Your task to perform on an android device: see creations saved in the google photos Image 0: 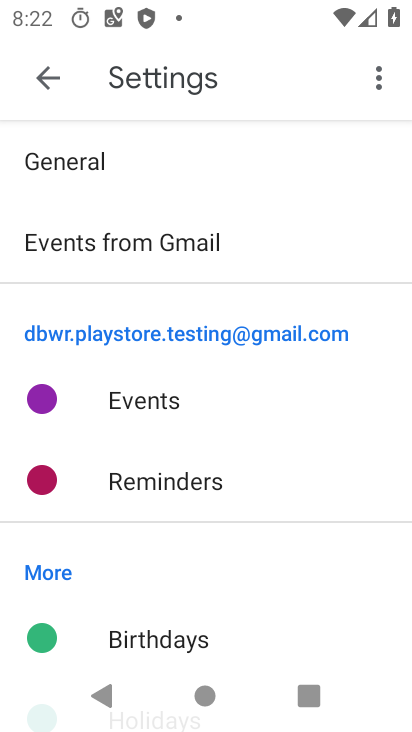
Step 0: press home button
Your task to perform on an android device: see creations saved in the google photos Image 1: 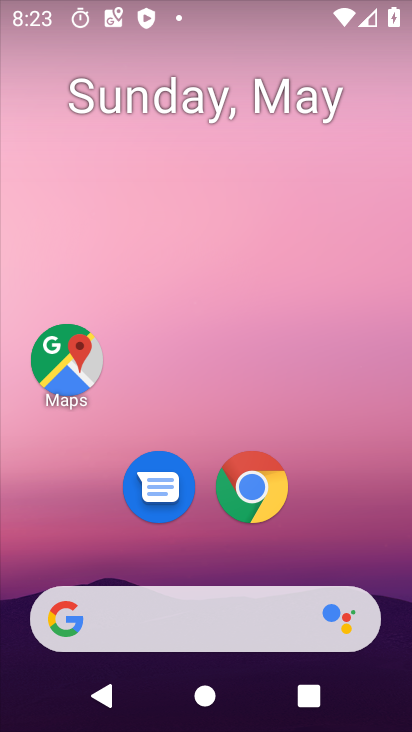
Step 1: drag from (71, 433) to (209, 141)
Your task to perform on an android device: see creations saved in the google photos Image 2: 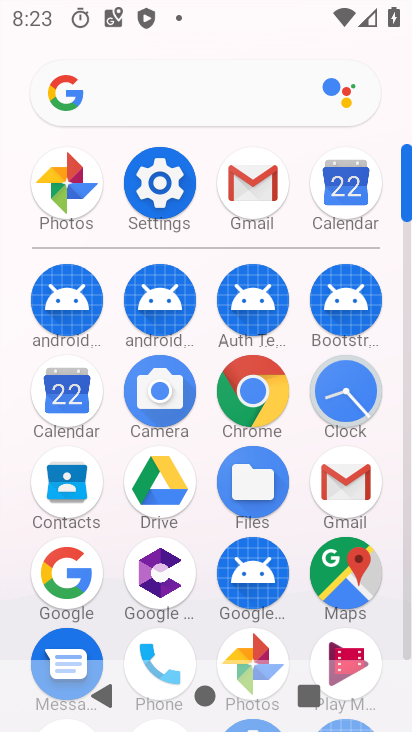
Step 2: click (75, 204)
Your task to perform on an android device: see creations saved in the google photos Image 3: 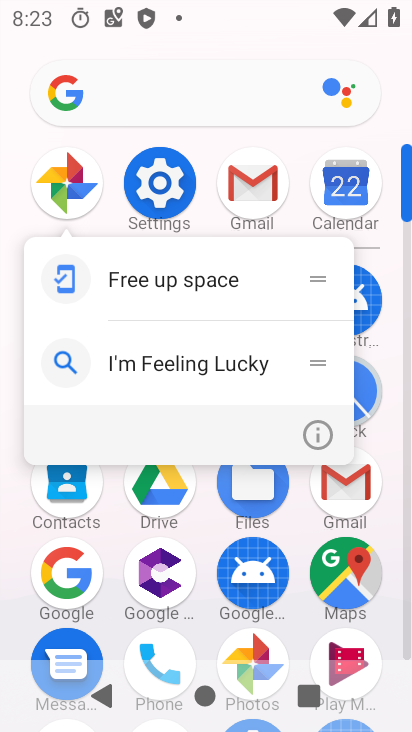
Step 3: click (77, 203)
Your task to perform on an android device: see creations saved in the google photos Image 4: 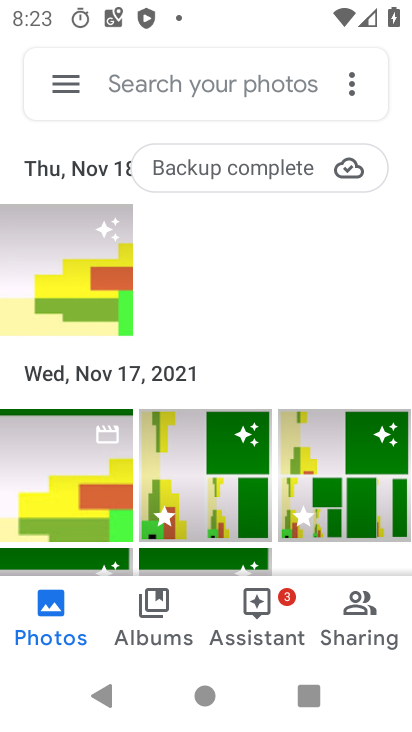
Step 4: click (209, 90)
Your task to perform on an android device: see creations saved in the google photos Image 5: 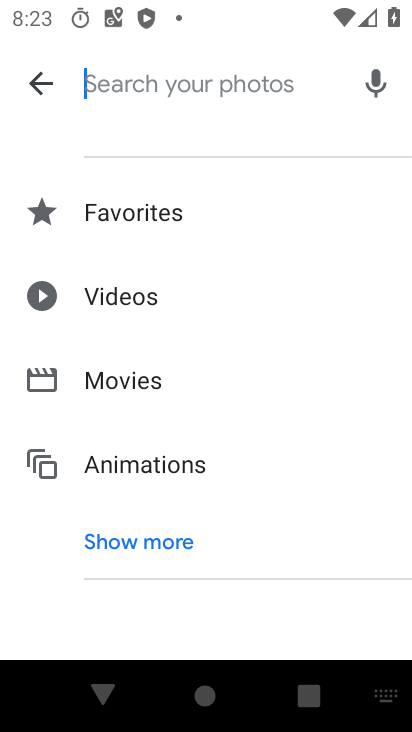
Step 5: click (105, 547)
Your task to perform on an android device: see creations saved in the google photos Image 6: 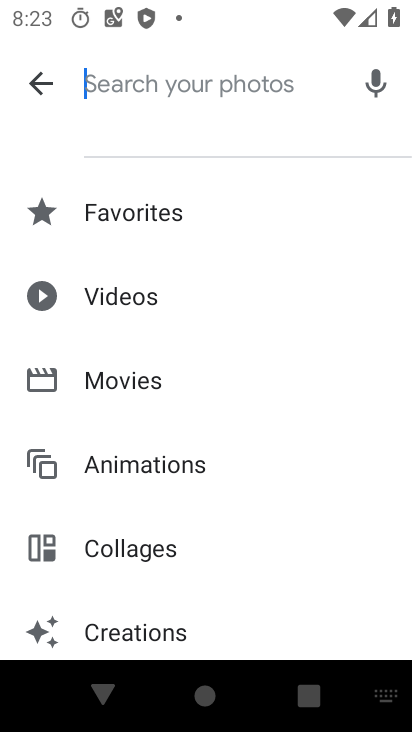
Step 6: click (56, 635)
Your task to perform on an android device: see creations saved in the google photos Image 7: 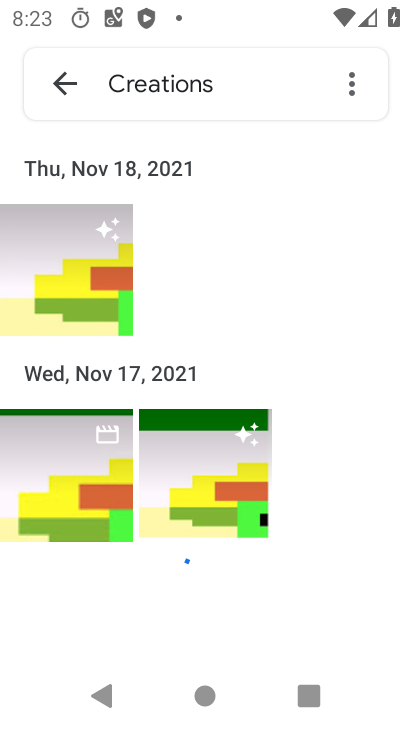
Step 7: task complete